Your task to perform on an android device: What's the weather going to be tomorrow? Image 0: 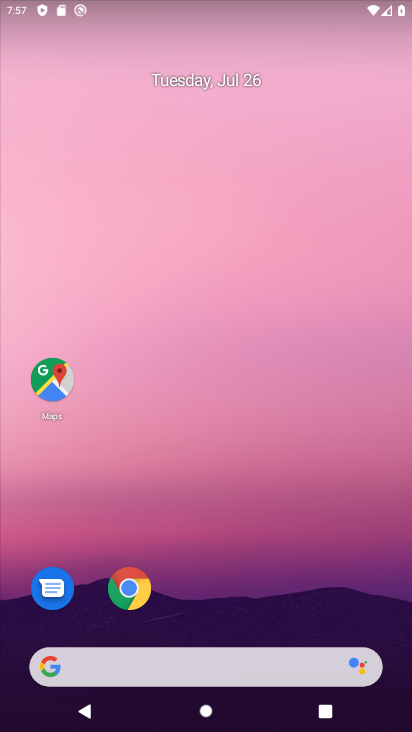
Step 0: drag from (320, 649) to (153, 83)
Your task to perform on an android device: What's the weather going to be tomorrow? Image 1: 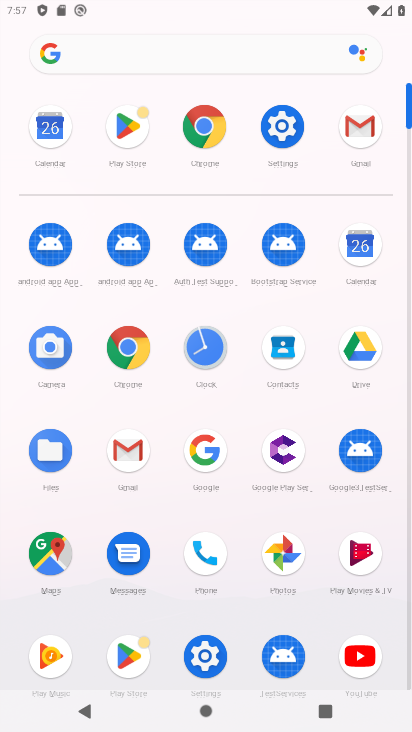
Step 1: click (183, 447)
Your task to perform on an android device: What's the weather going to be tomorrow? Image 2: 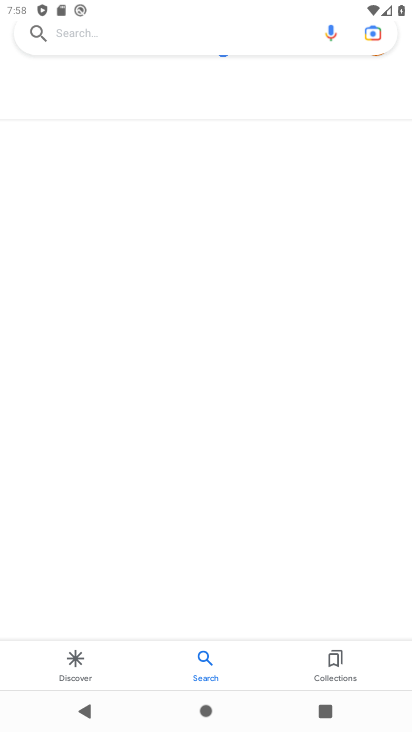
Step 2: click (115, 34)
Your task to perform on an android device: What's the weather going to be tomorrow? Image 3: 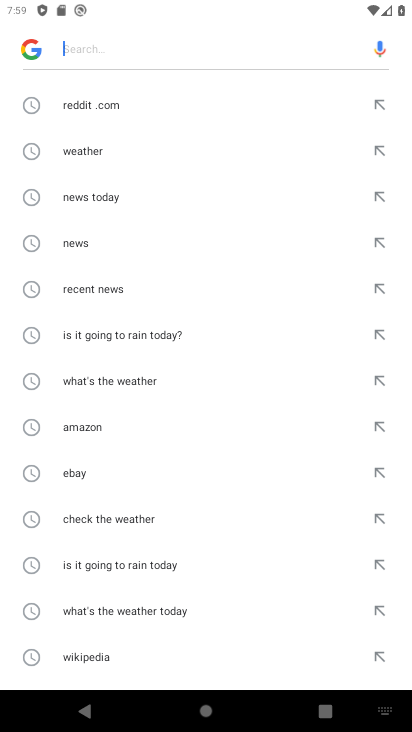
Step 3: drag from (151, 632) to (202, 163)
Your task to perform on an android device: What's the weather going to be tomorrow? Image 4: 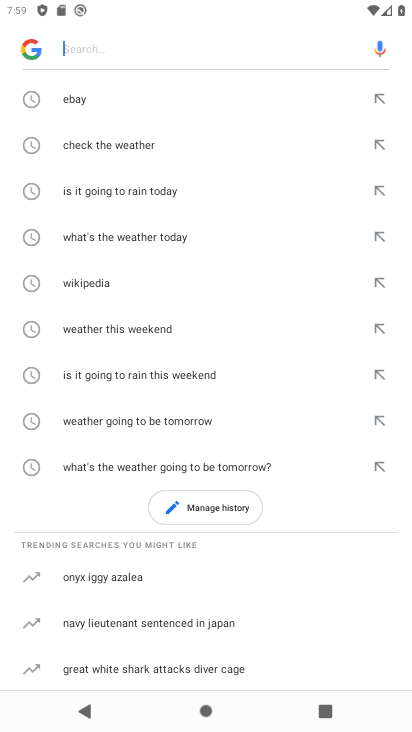
Step 4: click (170, 465)
Your task to perform on an android device: What's the weather going to be tomorrow? Image 5: 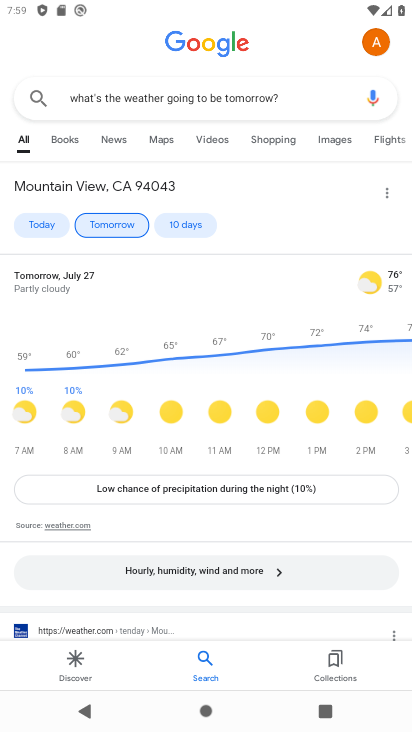
Step 5: task complete